Your task to perform on an android device: toggle notifications settings in the gmail app Image 0: 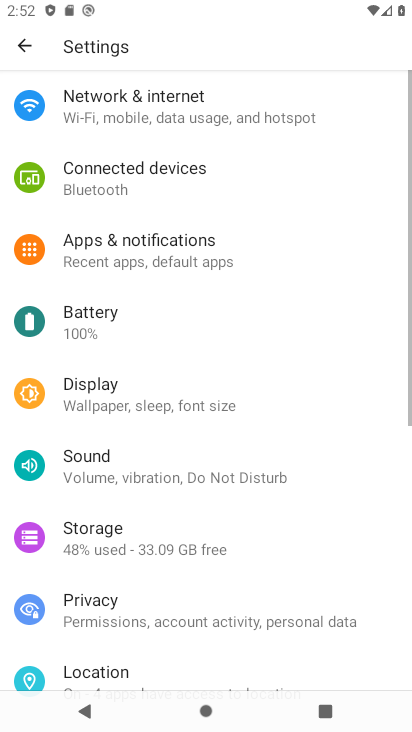
Step 0: press back button
Your task to perform on an android device: toggle notifications settings in the gmail app Image 1: 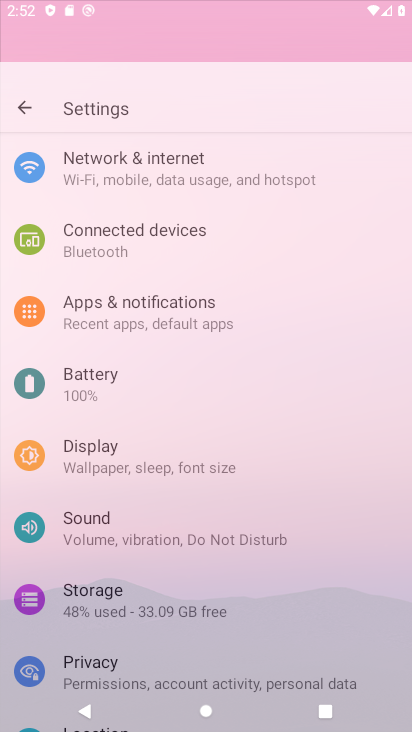
Step 1: press back button
Your task to perform on an android device: toggle notifications settings in the gmail app Image 2: 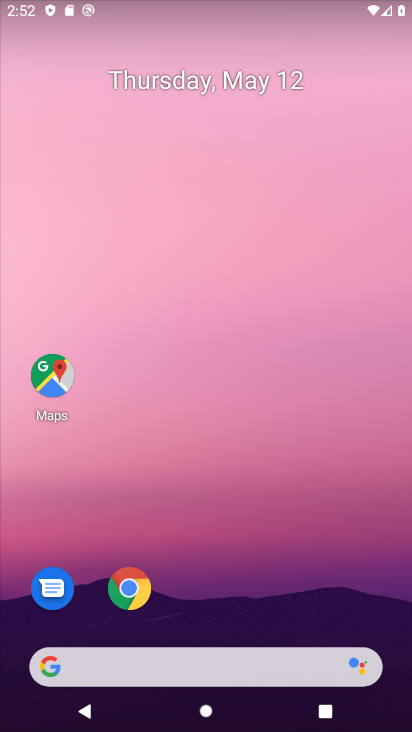
Step 2: drag from (283, 559) to (243, 12)
Your task to perform on an android device: toggle notifications settings in the gmail app Image 3: 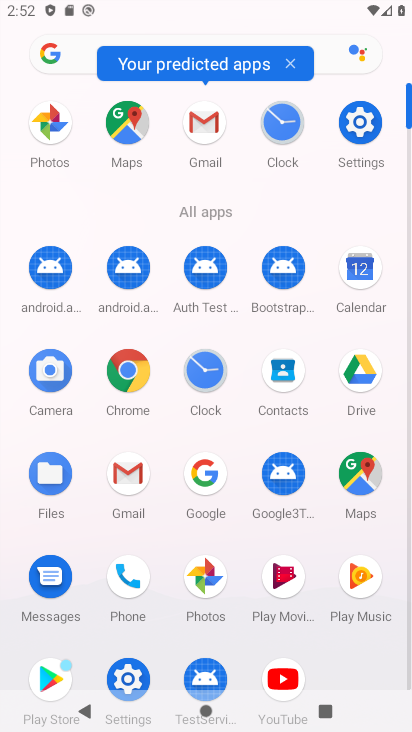
Step 3: drag from (9, 534) to (8, 261)
Your task to perform on an android device: toggle notifications settings in the gmail app Image 4: 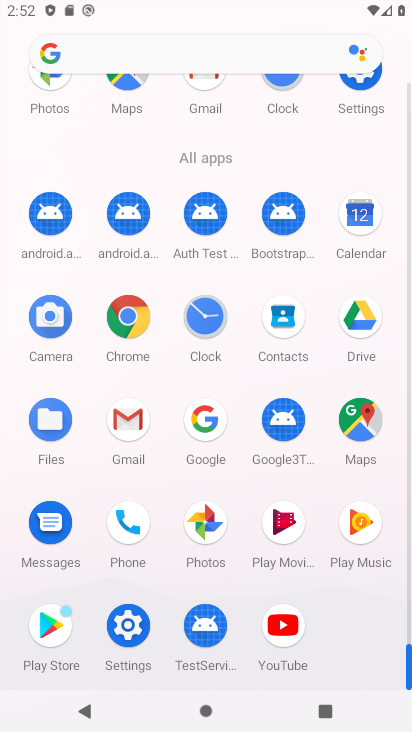
Step 4: click (125, 417)
Your task to perform on an android device: toggle notifications settings in the gmail app Image 5: 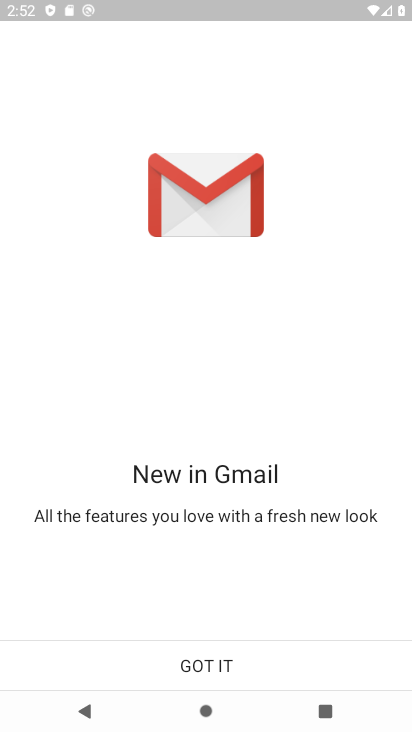
Step 5: click (208, 661)
Your task to perform on an android device: toggle notifications settings in the gmail app Image 6: 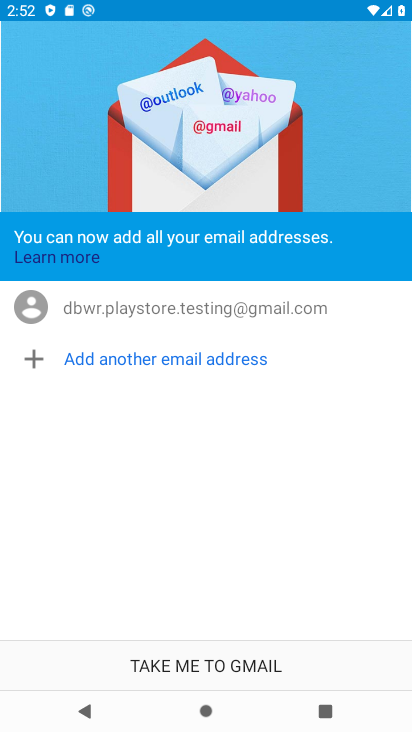
Step 6: click (215, 673)
Your task to perform on an android device: toggle notifications settings in the gmail app Image 7: 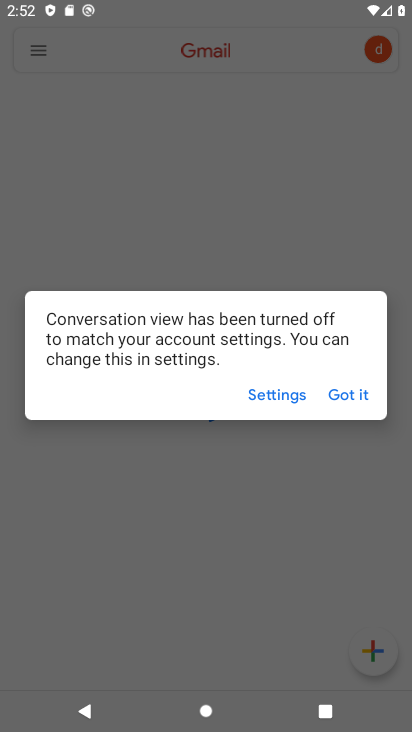
Step 7: click (343, 385)
Your task to perform on an android device: toggle notifications settings in the gmail app Image 8: 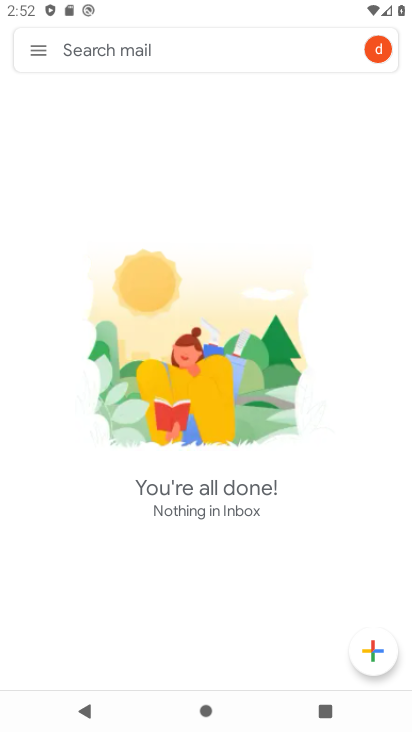
Step 8: click (30, 34)
Your task to perform on an android device: toggle notifications settings in the gmail app Image 9: 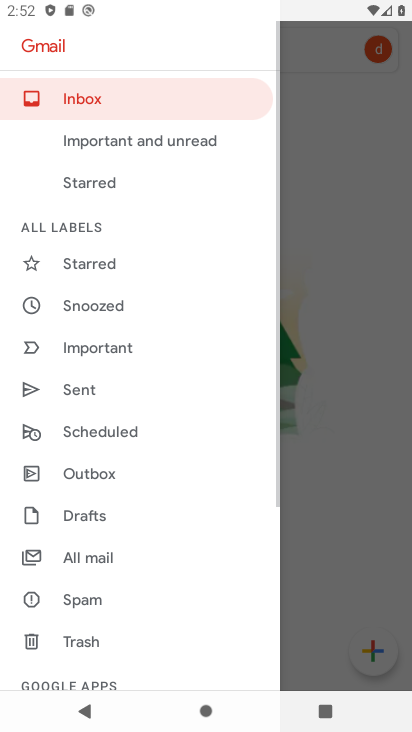
Step 9: drag from (184, 527) to (178, 198)
Your task to perform on an android device: toggle notifications settings in the gmail app Image 10: 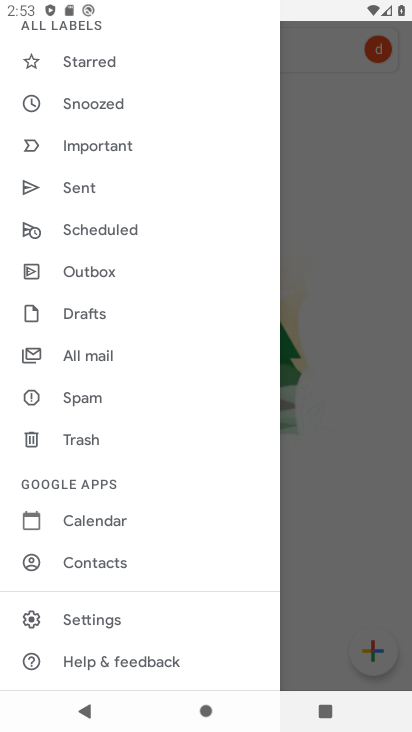
Step 10: click (103, 611)
Your task to perform on an android device: toggle notifications settings in the gmail app Image 11: 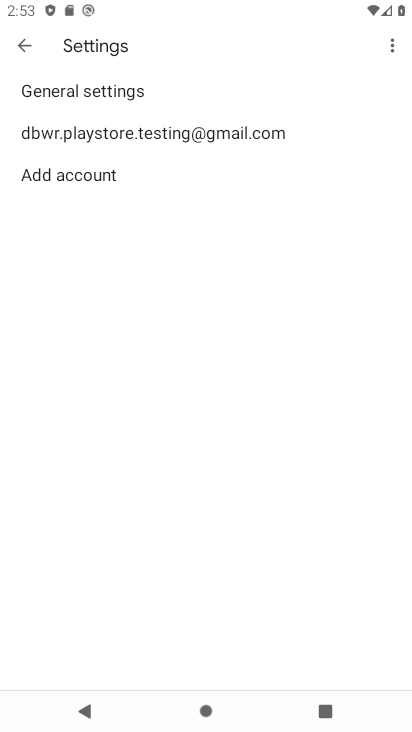
Step 11: click (144, 130)
Your task to perform on an android device: toggle notifications settings in the gmail app Image 12: 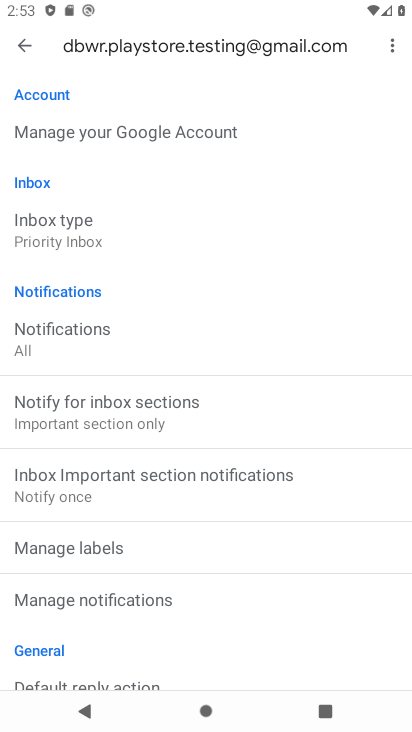
Step 12: drag from (264, 517) to (296, 189)
Your task to perform on an android device: toggle notifications settings in the gmail app Image 13: 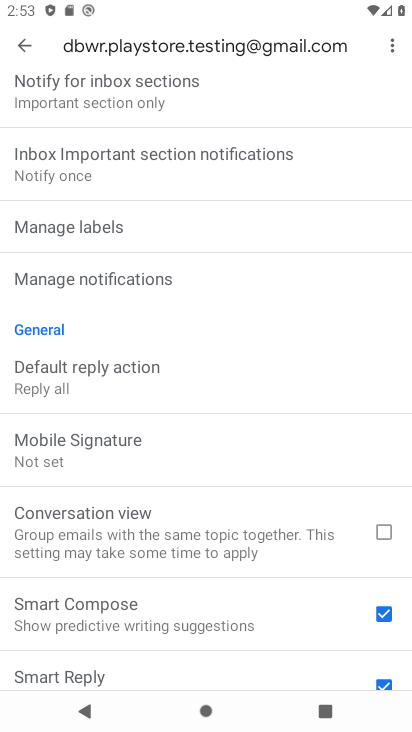
Step 13: click (115, 275)
Your task to perform on an android device: toggle notifications settings in the gmail app Image 14: 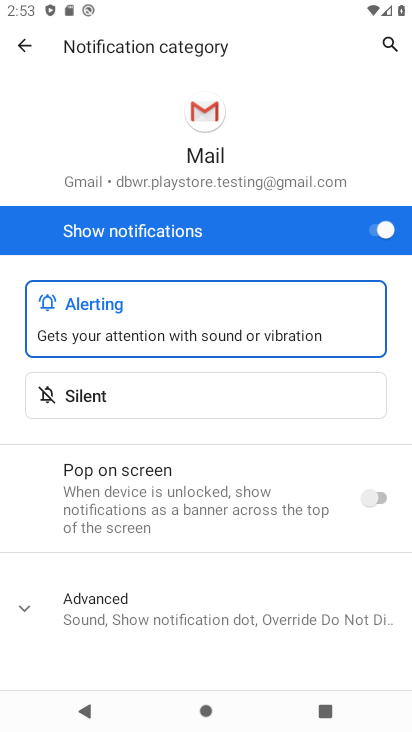
Step 14: click (367, 235)
Your task to perform on an android device: toggle notifications settings in the gmail app Image 15: 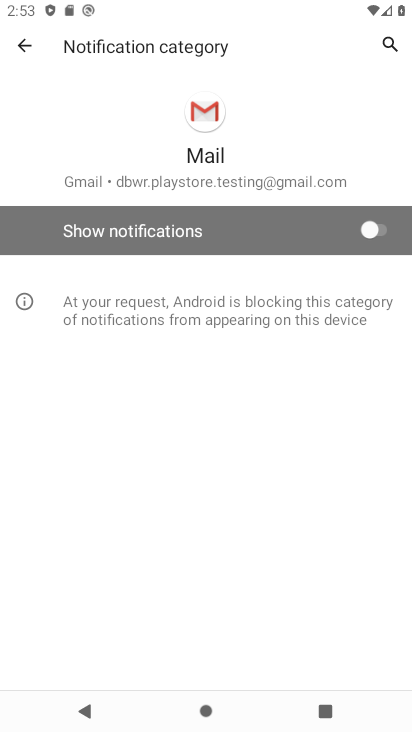
Step 15: task complete